Your task to perform on an android device: turn off notifications settings in the gmail app Image 0: 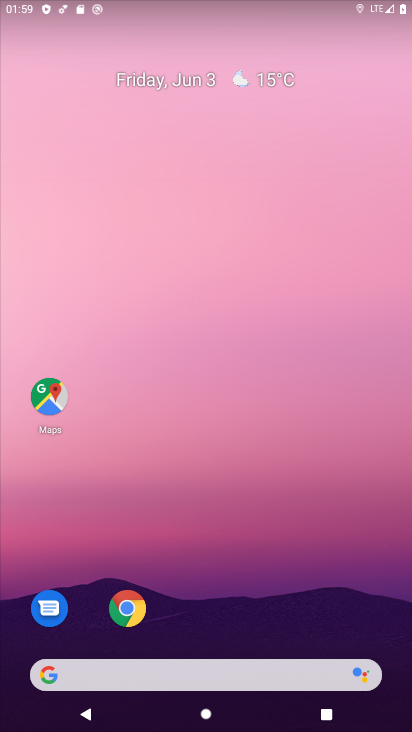
Step 0: drag from (235, 497) to (235, 142)
Your task to perform on an android device: turn off notifications settings in the gmail app Image 1: 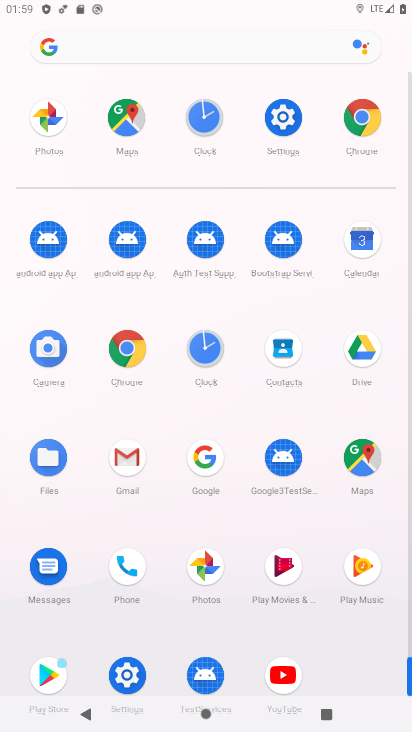
Step 1: click (138, 465)
Your task to perform on an android device: turn off notifications settings in the gmail app Image 2: 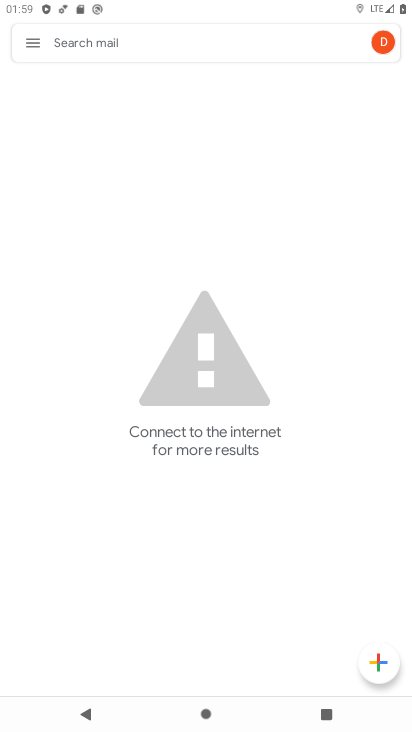
Step 2: click (23, 44)
Your task to perform on an android device: turn off notifications settings in the gmail app Image 3: 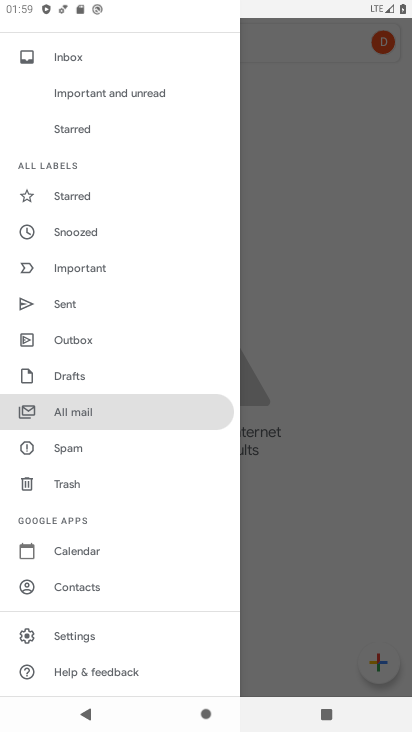
Step 3: click (81, 645)
Your task to perform on an android device: turn off notifications settings in the gmail app Image 4: 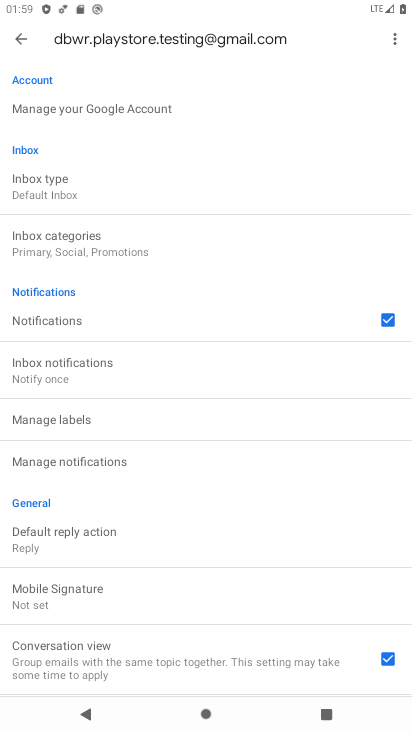
Step 4: drag from (210, 182) to (198, 456)
Your task to perform on an android device: turn off notifications settings in the gmail app Image 5: 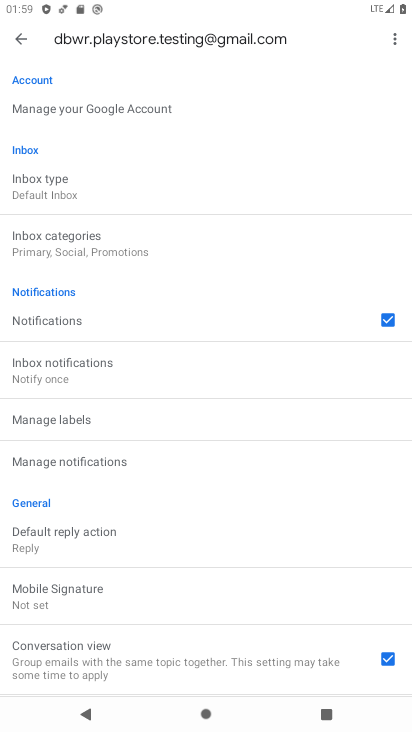
Step 5: drag from (158, 135) to (191, 486)
Your task to perform on an android device: turn off notifications settings in the gmail app Image 6: 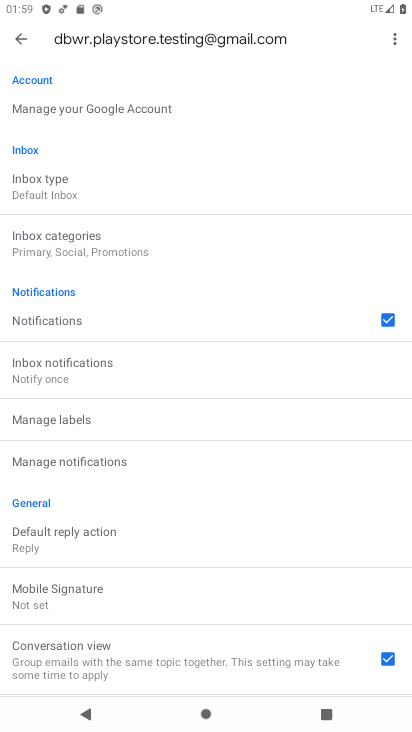
Step 6: click (57, 475)
Your task to perform on an android device: turn off notifications settings in the gmail app Image 7: 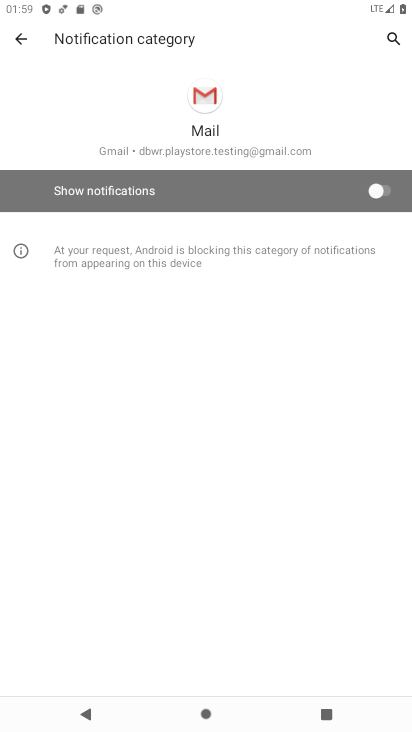
Step 7: task complete